Your task to perform on an android device: Open Google Maps Image 0: 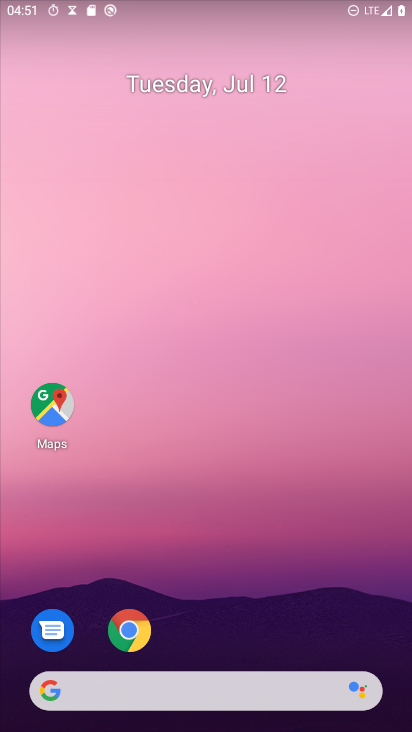
Step 0: drag from (318, 678) to (398, 50)
Your task to perform on an android device: Open Google Maps Image 1: 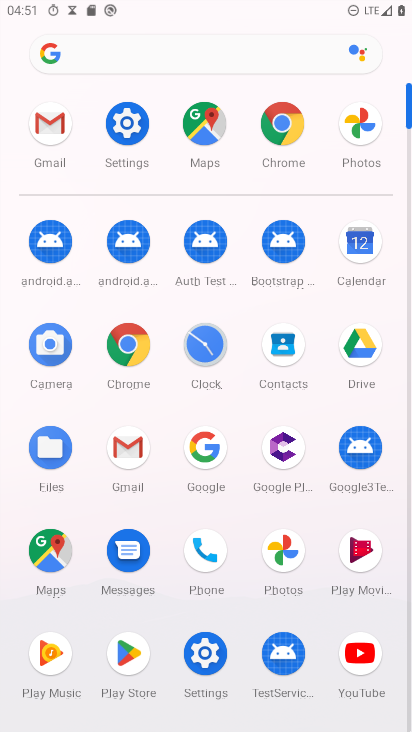
Step 1: click (56, 548)
Your task to perform on an android device: Open Google Maps Image 2: 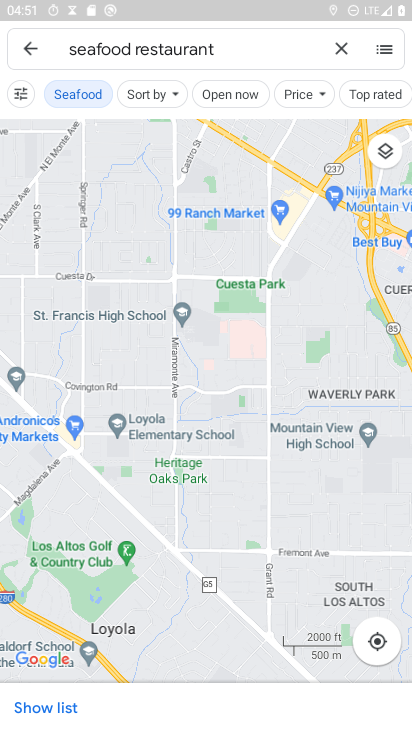
Step 2: task complete